Your task to perform on an android device: turn off sleep mode Image 0: 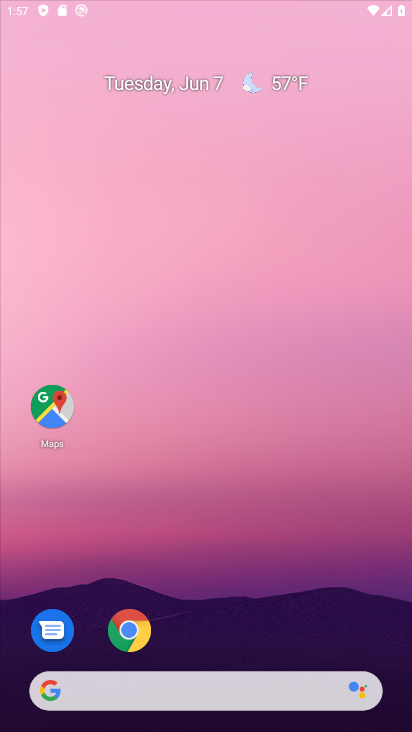
Step 0: click (140, 635)
Your task to perform on an android device: turn off sleep mode Image 1: 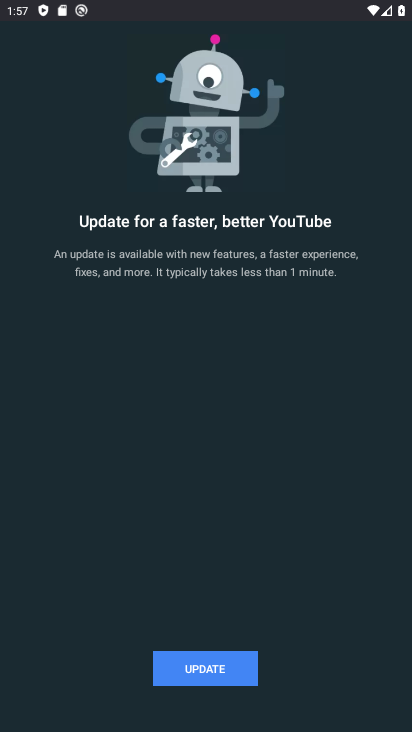
Step 1: press back button
Your task to perform on an android device: turn off sleep mode Image 2: 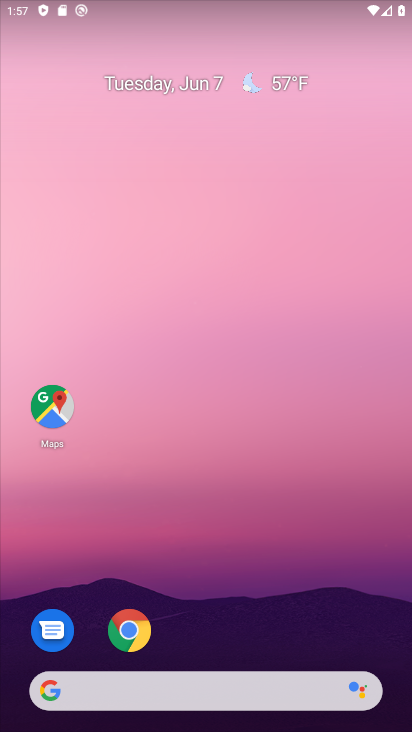
Step 2: drag from (386, 691) to (348, 14)
Your task to perform on an android device: turn off sleep mode Image 3: 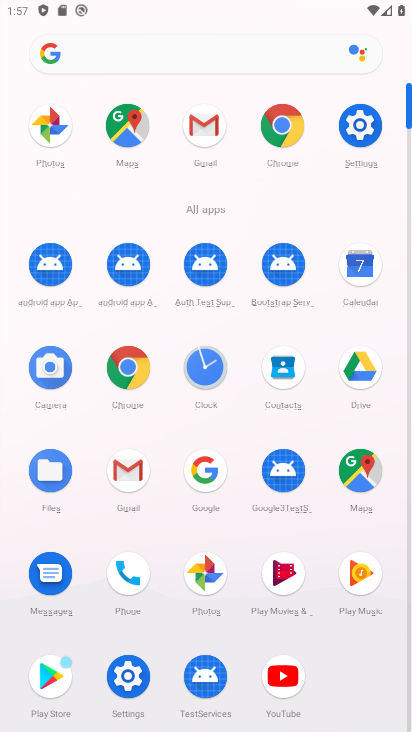
Step 3: click (361, 123)
Your task to perform on an android device: turn off sleep mode Image 4: 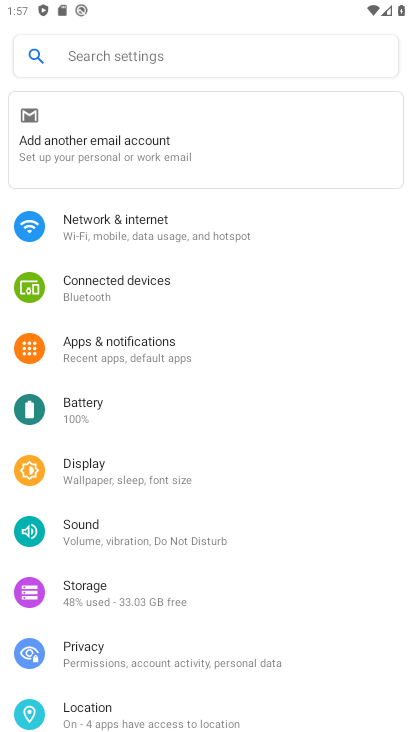
Step 4: click (61, 464)
Your task to perform on an android device: turn off sleep mode Image 5: 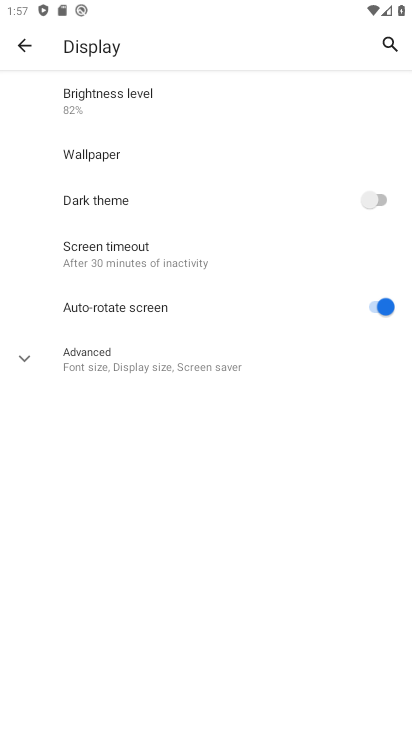
Step 5: click (85, 367)
Your task to perform on an android device: turn off sleep mode Image 6: 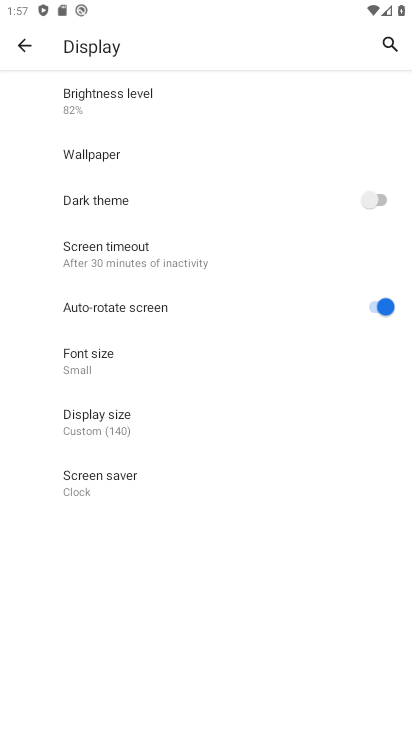
Step 6: drag from (198, 144) to (223, 451)
Your task to perform on an android device: turn off sleep mode Image 7: 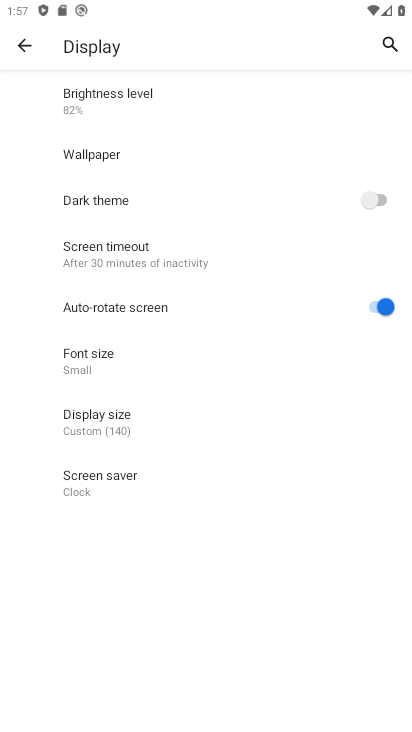
Step 7: click (96, 243)
Your task to perform on an android device: turn off sleep mode Image 8: 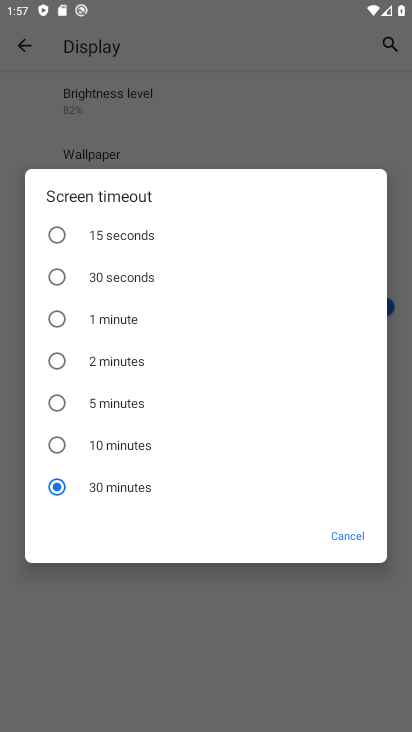
Step 8: task complete